Your task to perform on an android device: Is it going to rain today? Image 0: 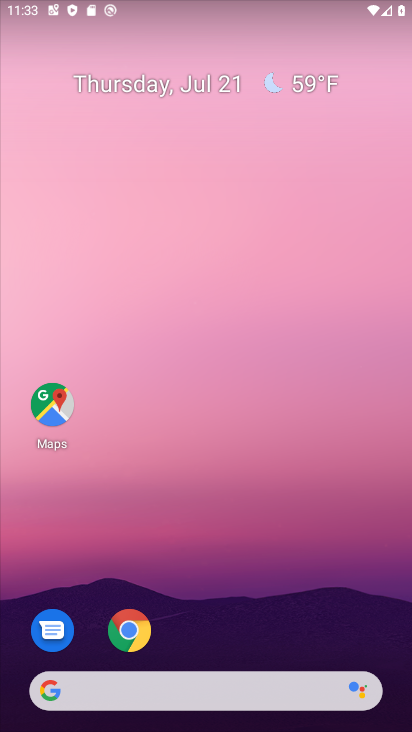
Step 0: drag from (177, 667) to (177, 278)
Your task to perform on an android device: Is it going to rain today? Image 1: 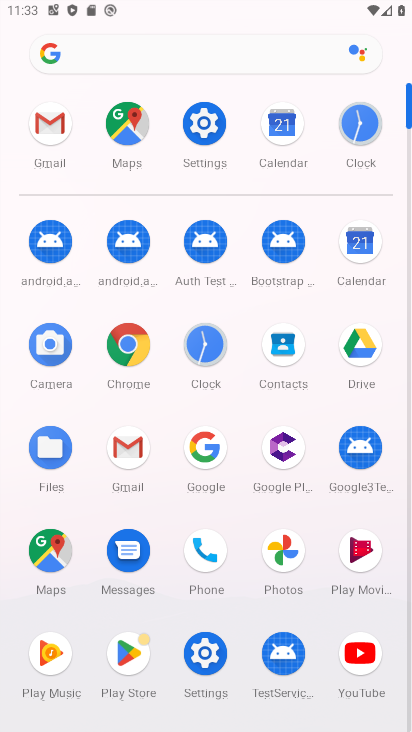
Step 1: click (202, 449)
Your task to perform on an android device: Is it going to rain today? Image 2: 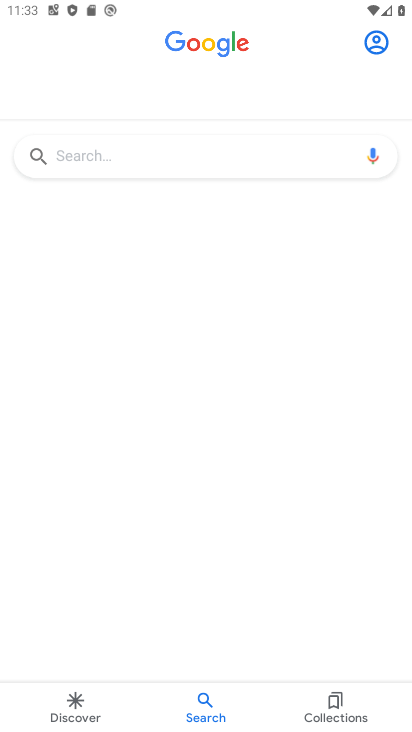
Step 2: click (89, 150)
Your task to perform on an android device: Is it going to rain today? Image 3: 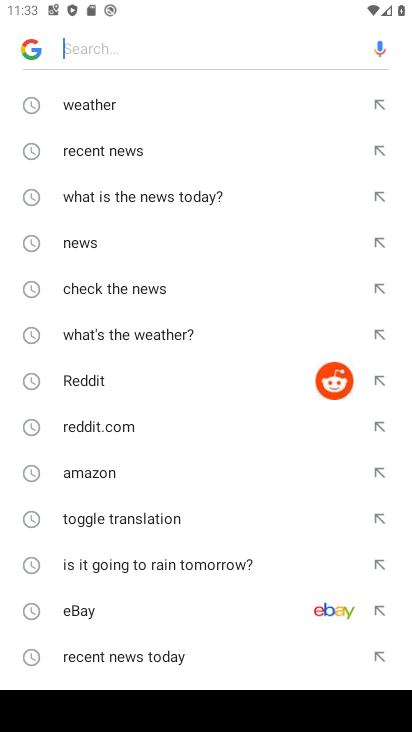
Step 3: drag from (149, 627) to (178, 267)
Your task to perform on an android device: Is it going to rain today? Image 4: 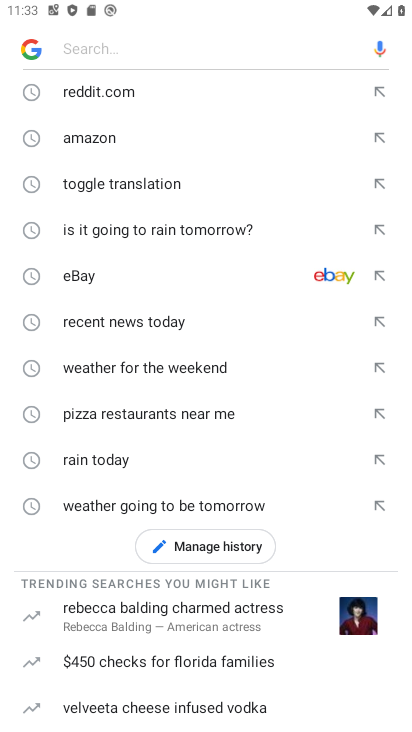
Step 4: drag from (114, 529) to (147, 292)
Your task to perform on an android device: Is it going to rain today? Image 5: 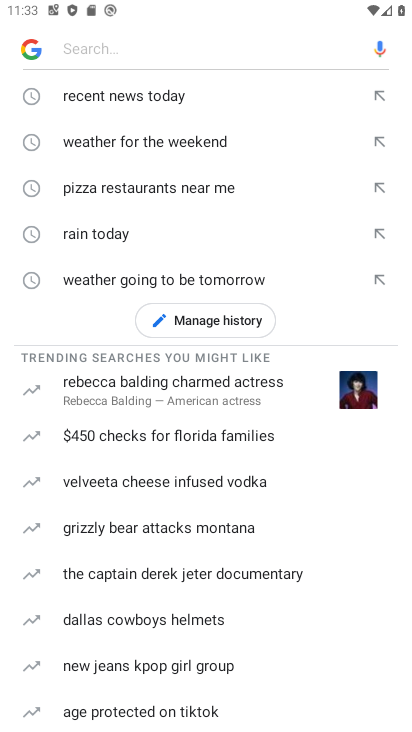
Step 5: click (293, 343)
Your task to perform on an android device: Is it going to rain today? Image 6: 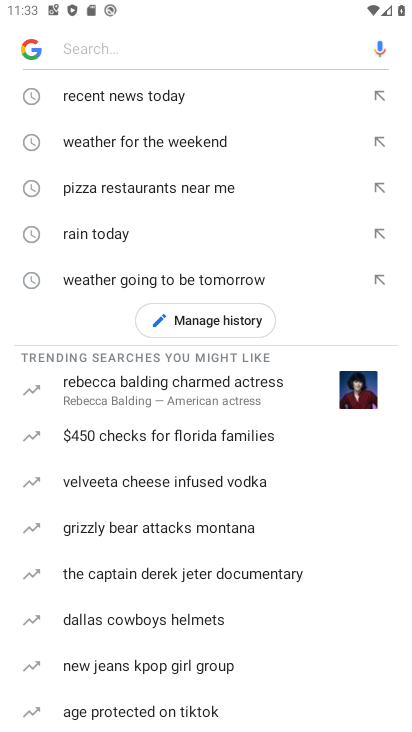
Step 6: drag from (257, 186) to (257, 494)
Your task to perform on an android device: Is it going to rain today? Image 7: 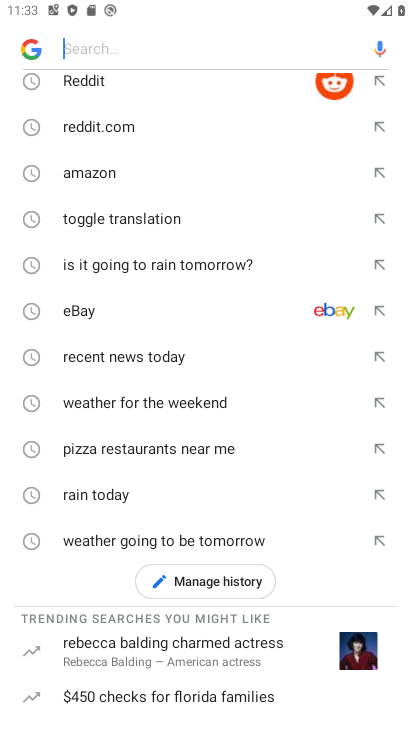
Step 7: click (187, 257)
Your task to perform on an android device: Is it going to rain today? Image 8: 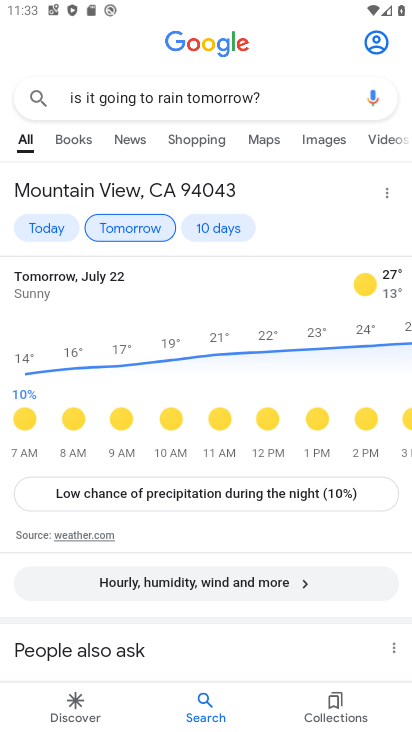
Step 8: click (46, 229)
Your task to perform on an android device: Is it going to rain today? Image 9: 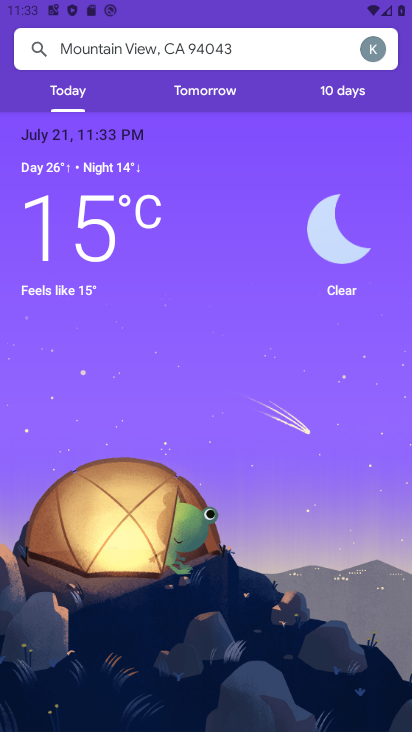
Step 9: task complete